Your task to perform on an android device: Go to CNN.com Image 0: 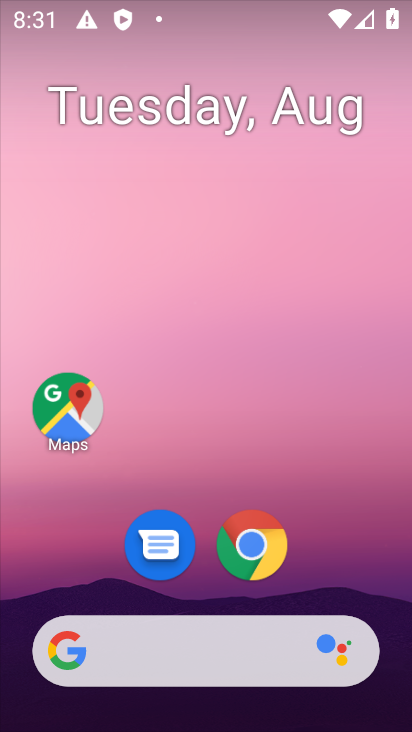
Step 0: click (244, 539)
Your task to perform on an android device: Go to CNN.com Image 1: 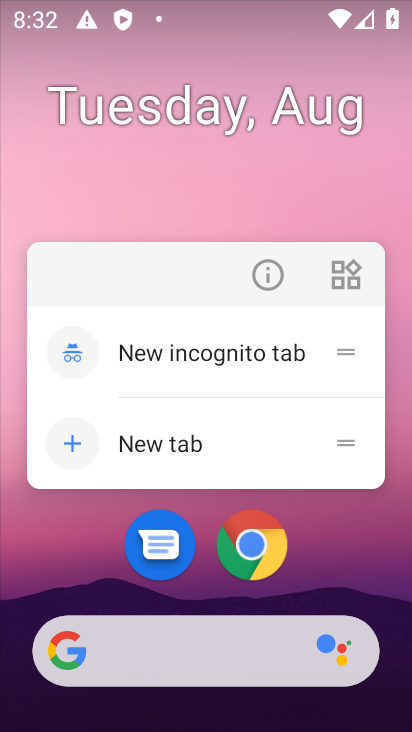
Step 1: press home button
Your task to perform on an android device: Go to CNN.com Image 2: 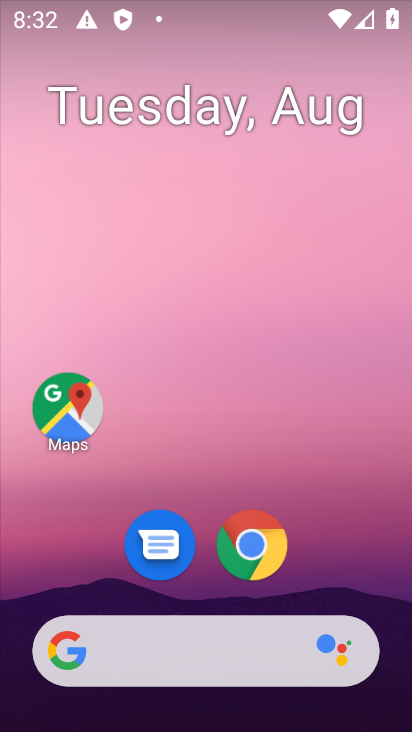
Step 2: click (263, 537)
Your task to perform on an android device: Go to CNN.com Image 3: 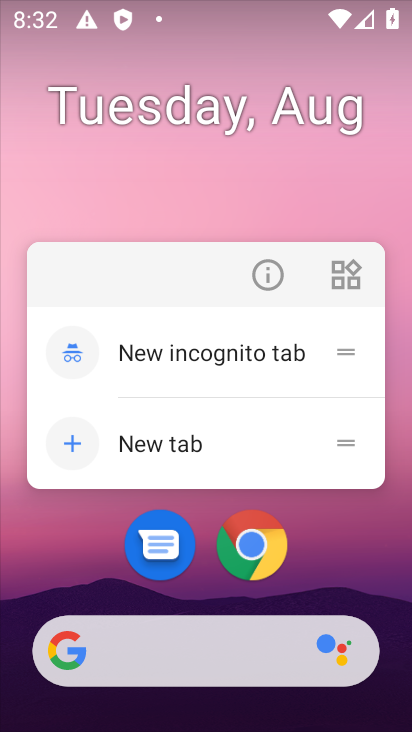
Step 3: press home button
Your task to perform on an android device: Go to CNN.com Image 4: 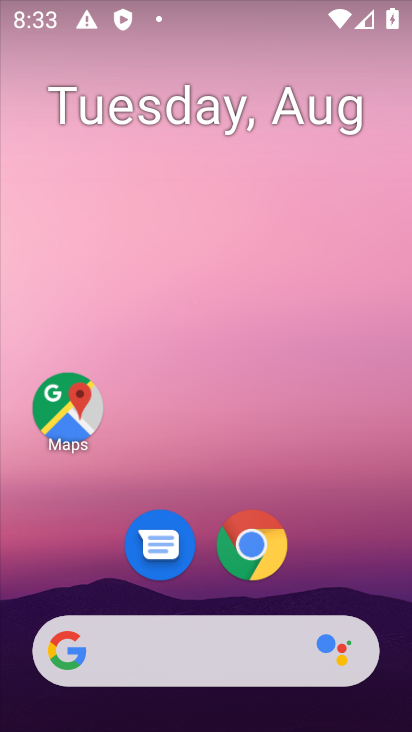
Step 4: click (180, 647)
Your task to perform on an android device: Go to CNN.com Image 5: 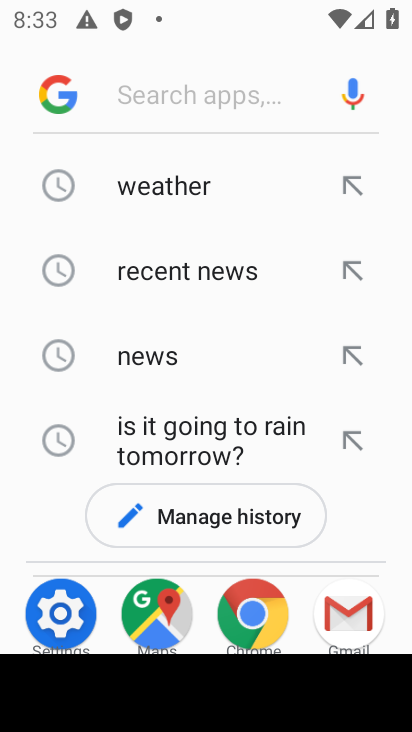
Step 5: click (206, 82)
Your task to perform on an android device: Go to CNN.com Image 6: 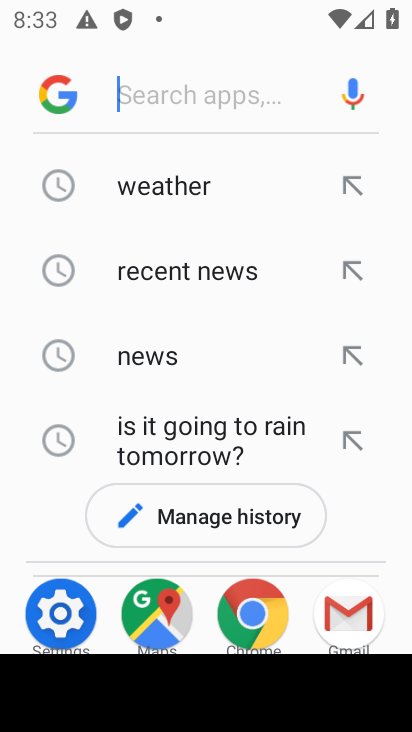
Step 6: type "CNN.com"
Your task to perform on an android device: Go to CNN.com Image 7: 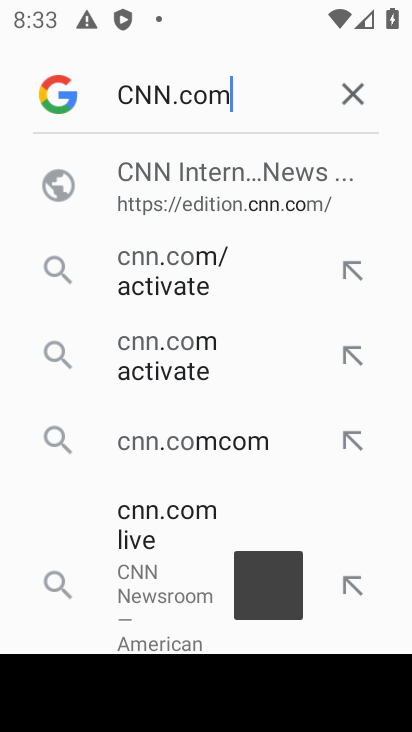
Step 7: type ""
Your task to perform on an android device: Go to CNN.com Image 8: 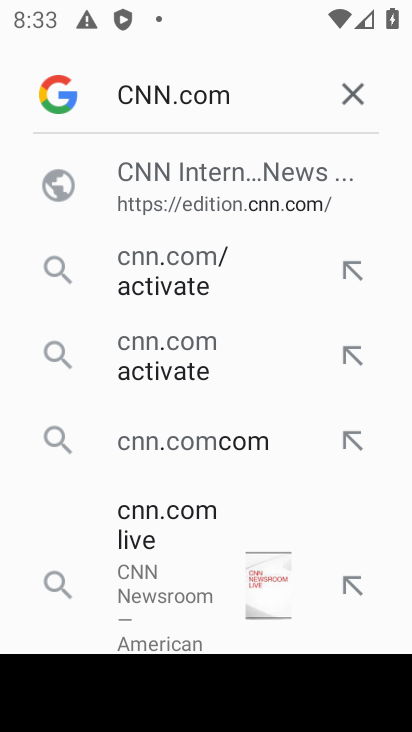
Step 8: click (209, 171)
Your task to perform on an android device: Go to CNN.com Image 9: 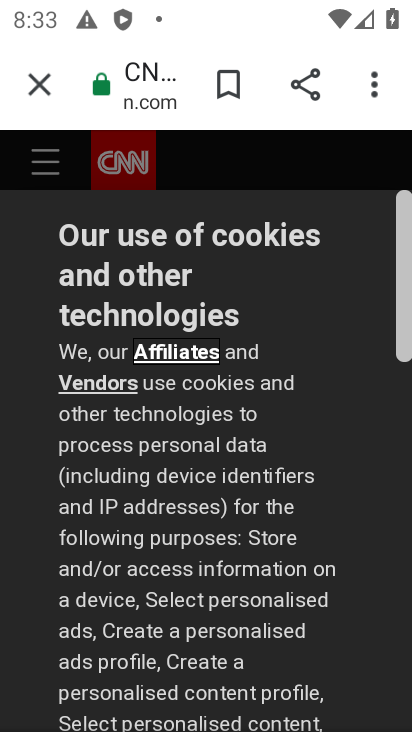
Step 9: task complete